Your task to perform on an android device: Search for vegetarian restaurants on Maps Image 0: 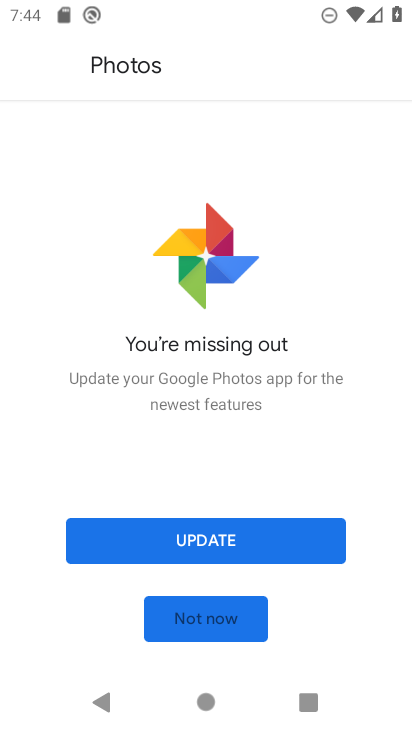
Step 0: press home button
Your task to perform on an android device: Search for vegetarian restaurants on Maps Image 1: 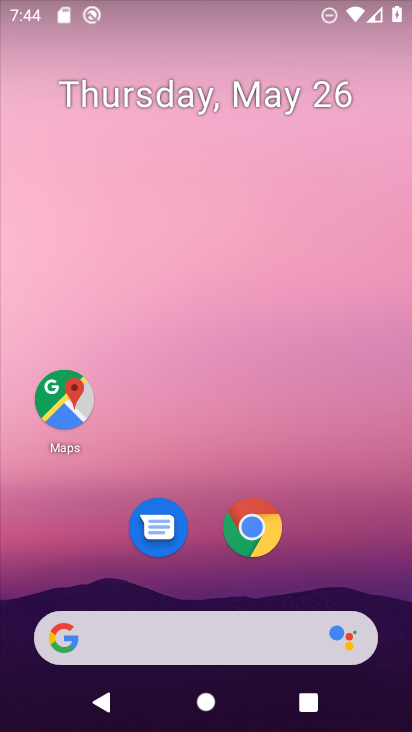
Step 1: click (61, 395)
Your task to perform on an android device: Search for vegetarian restaurants on Maps Image 2: 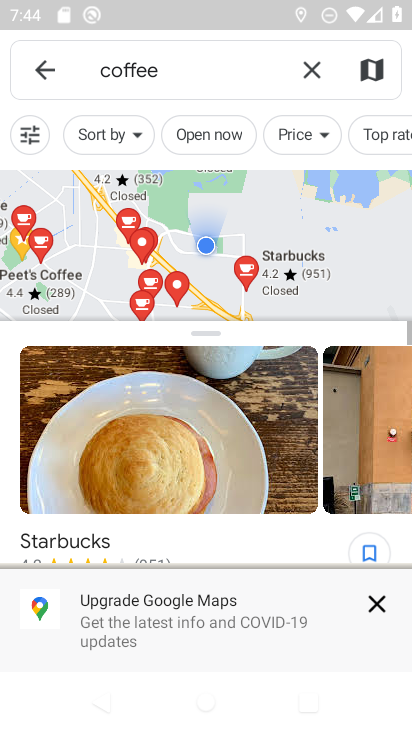
Step 2: click (304, 73)
Your task to perform on an android device: Search for vegetarian restaurants on Maps Image 3: 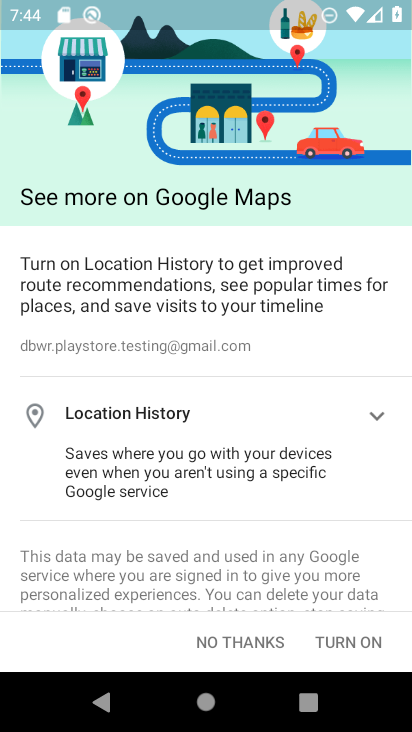
Step 3: click (233, 647)
Your task to perform on an android device: Search for vegetarian restaurants on Maps Image 4: 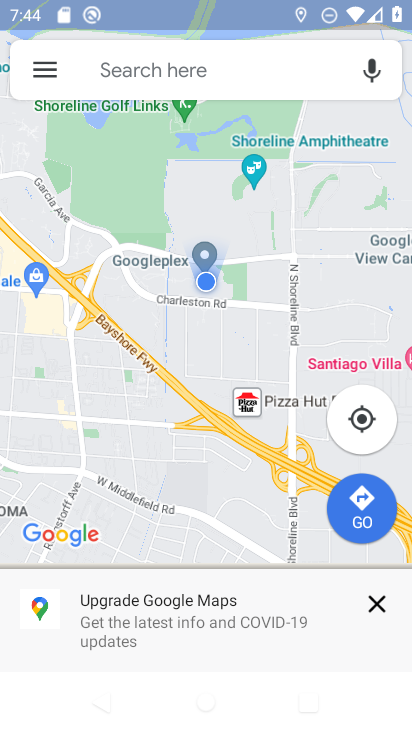
Step 4: click (197, 69)
Your task to perform on an android device: Search for vegetarian restaurants on Maps Image 5: 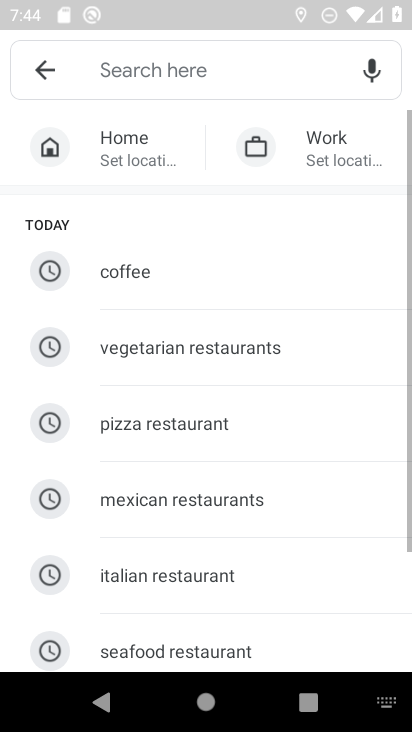
Step 5: click (149, 349)
Your task to perform on an android device: Search for vegetarian restaurants on Maps Image 6: 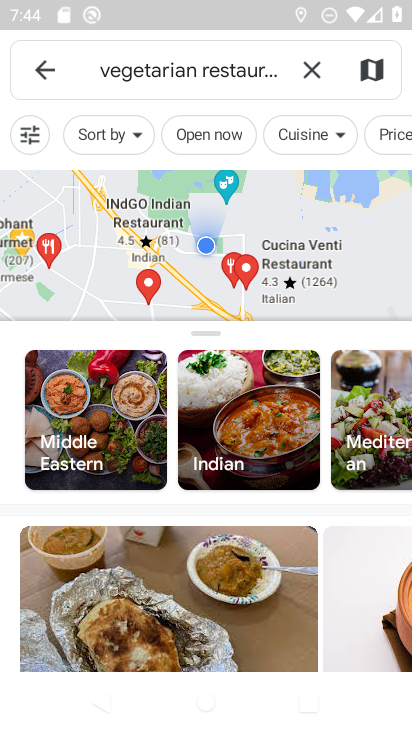
Step 6: task complete